Your task to perform on an android device: Add macbook air to the cart on walmart.com, then select checkout. Image 0: 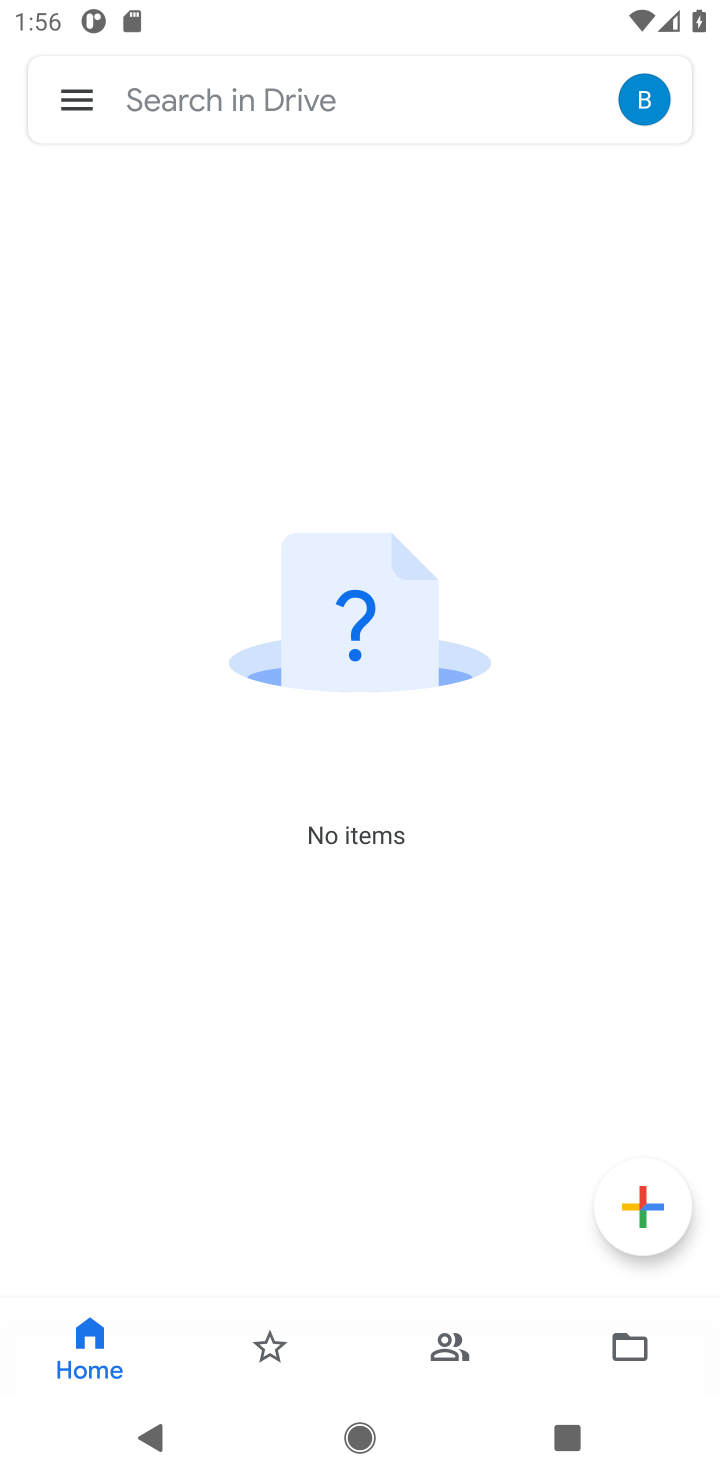
Step 0: press home button
Your task to perform on an android device: Add macbook air to the cart on walmart.com, then select checkout. Image 1: 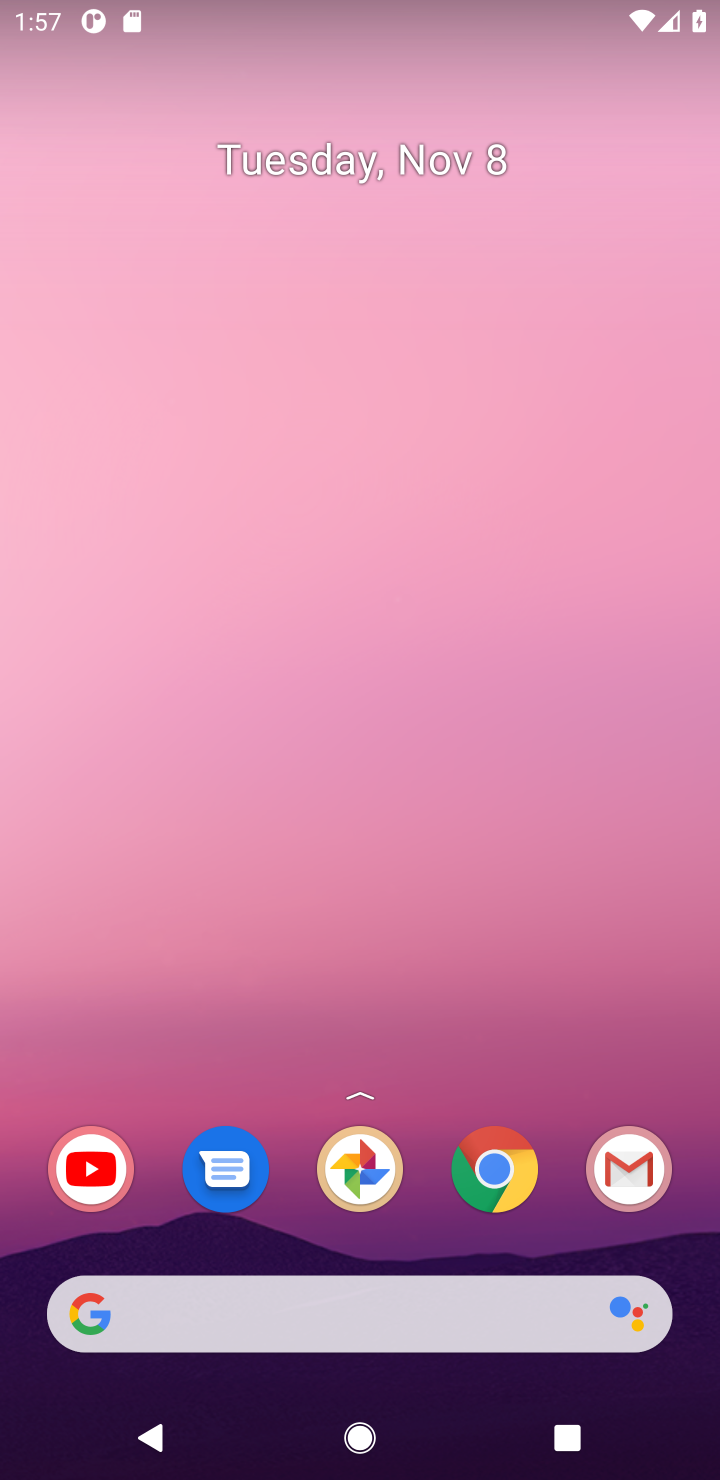
Step 1: click (464, 1163)
Your task to perform on an android device: Add macbook air to the cart on walmart.com, then select checkout. Image 2: 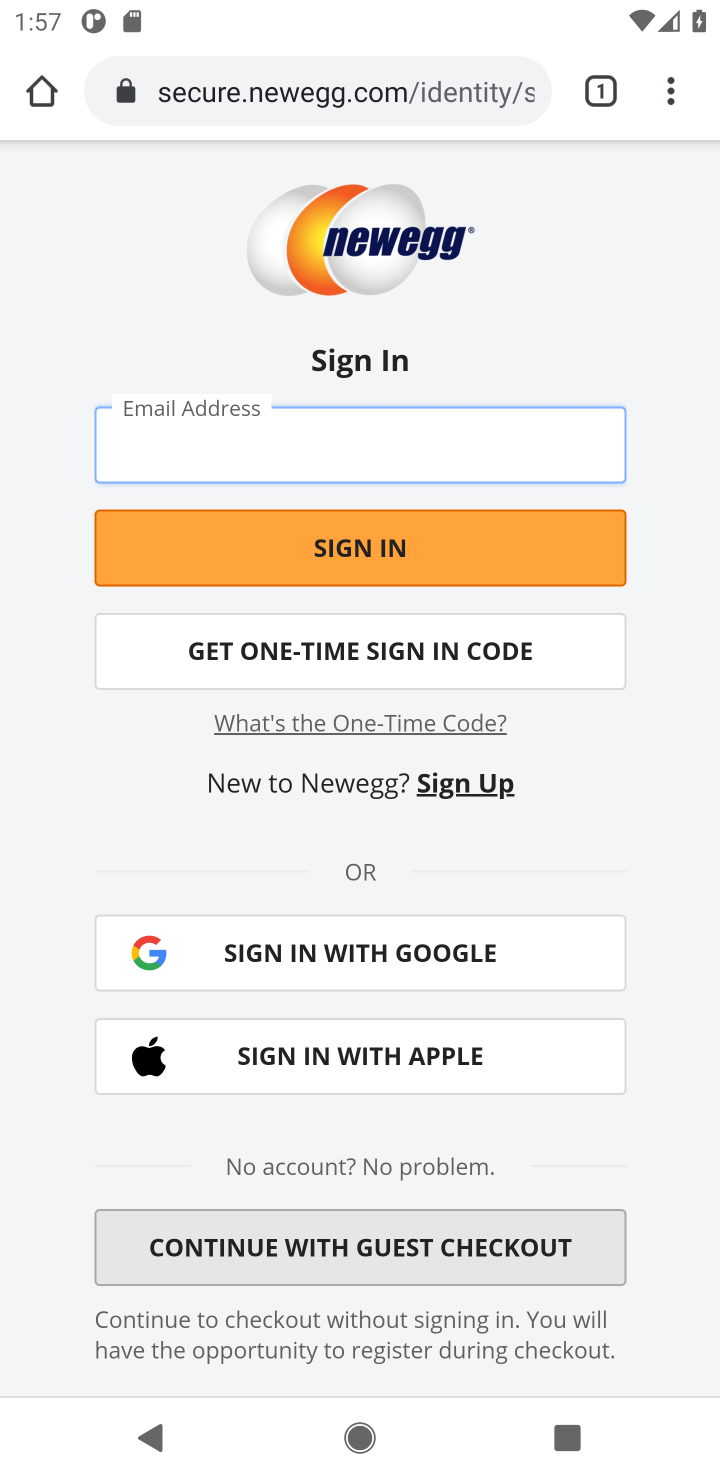
Step 2: click (349, 92)
Your task to perform on an android device: Add macbook air to the cart on walmart.com, then select checkout. Image 3: 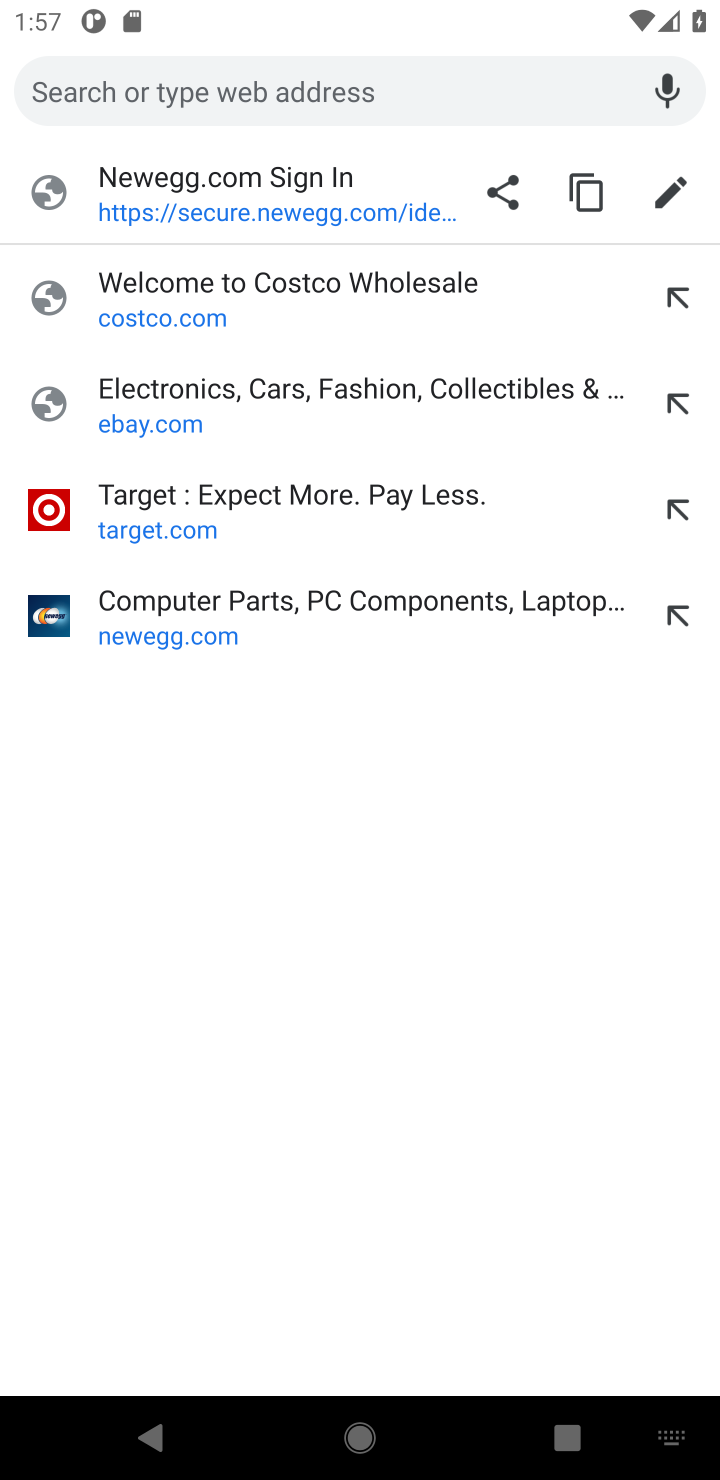
Step 3: type "walmart.com"
Your task to perform on an android device: Add macbook air to the cart on walmart.com, then select checkout. Image 4: 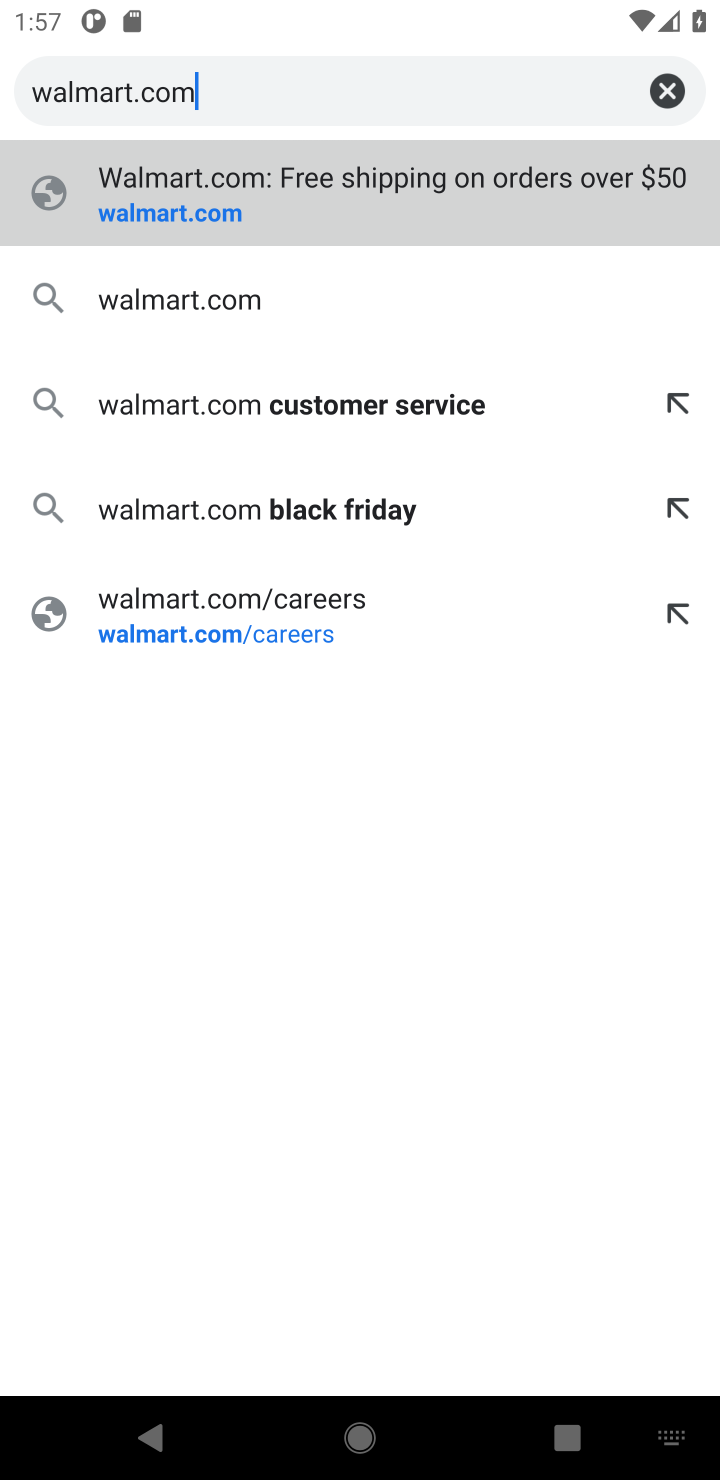
Step 4: click (343, 151)
Your task to perform on an android device: Add macbook air to the cart on walmart.com, then select checkout. Image 5: 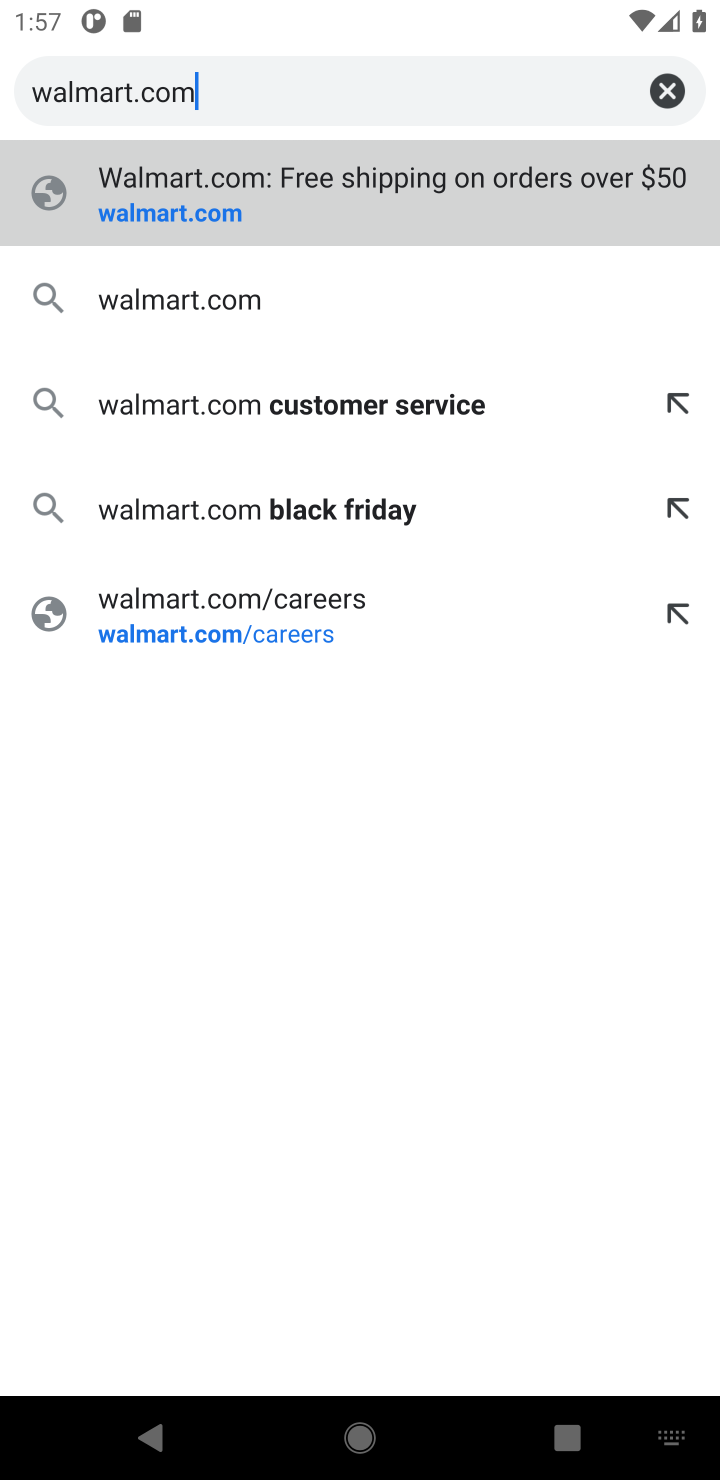
Step 5: click (339, 209)
Your task to perform on an android device: Add macbook air to the cart on walmart.com, then select checkout. Image 6: 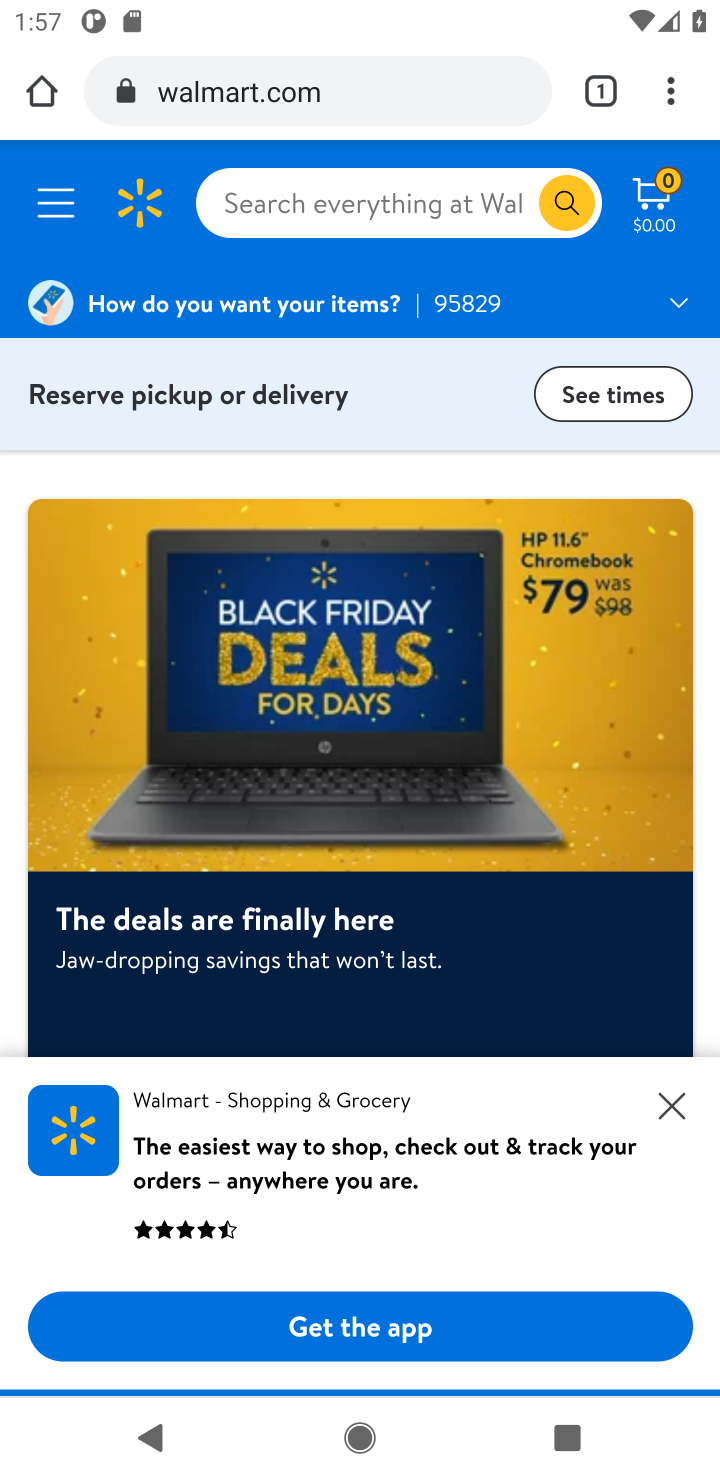
Step 6: click (368, 204)
Your task to perform on an android device: Add macbook air to the cart on walmart.com, then select checkout. Image 7: 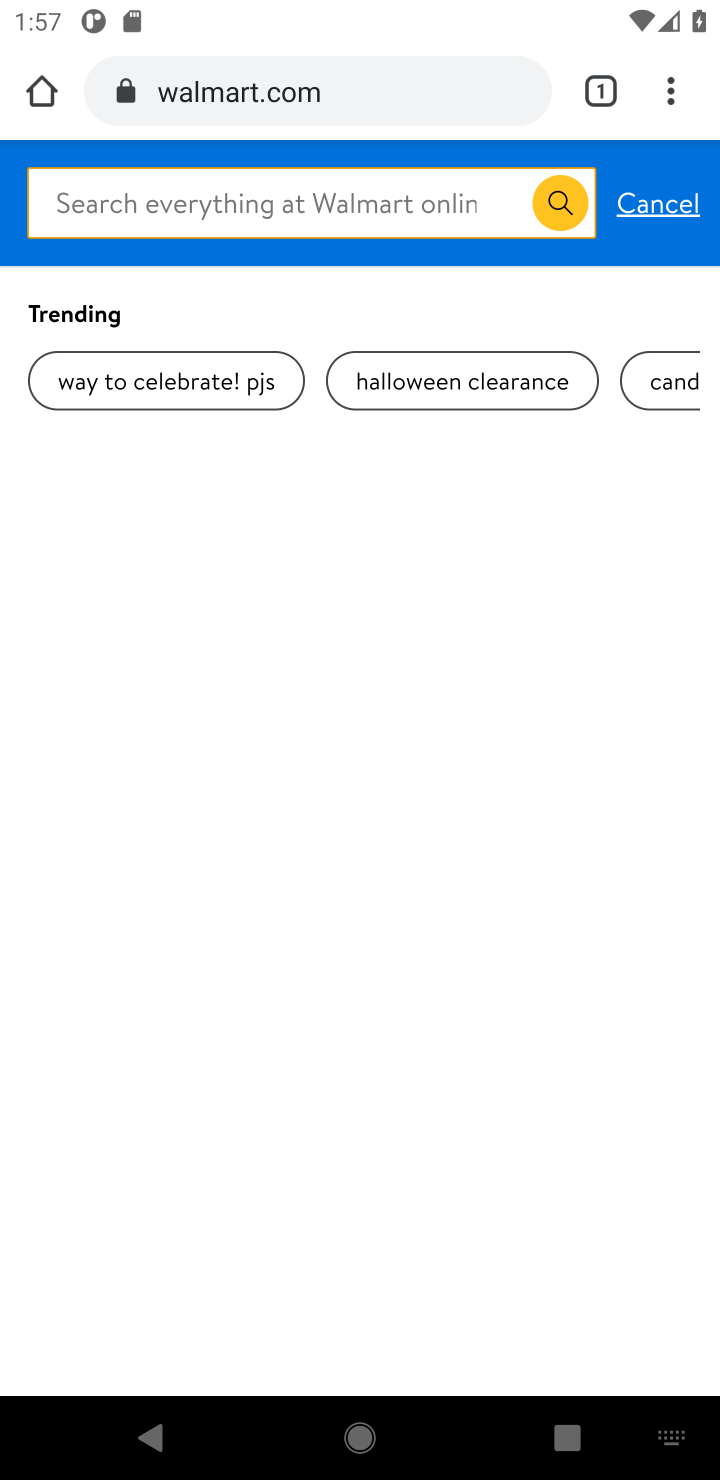
Step 7: type "macbook air"
Your task to perform on an android device: Add macbook air to the cart on walmart.com, then select checkout. Image 8: 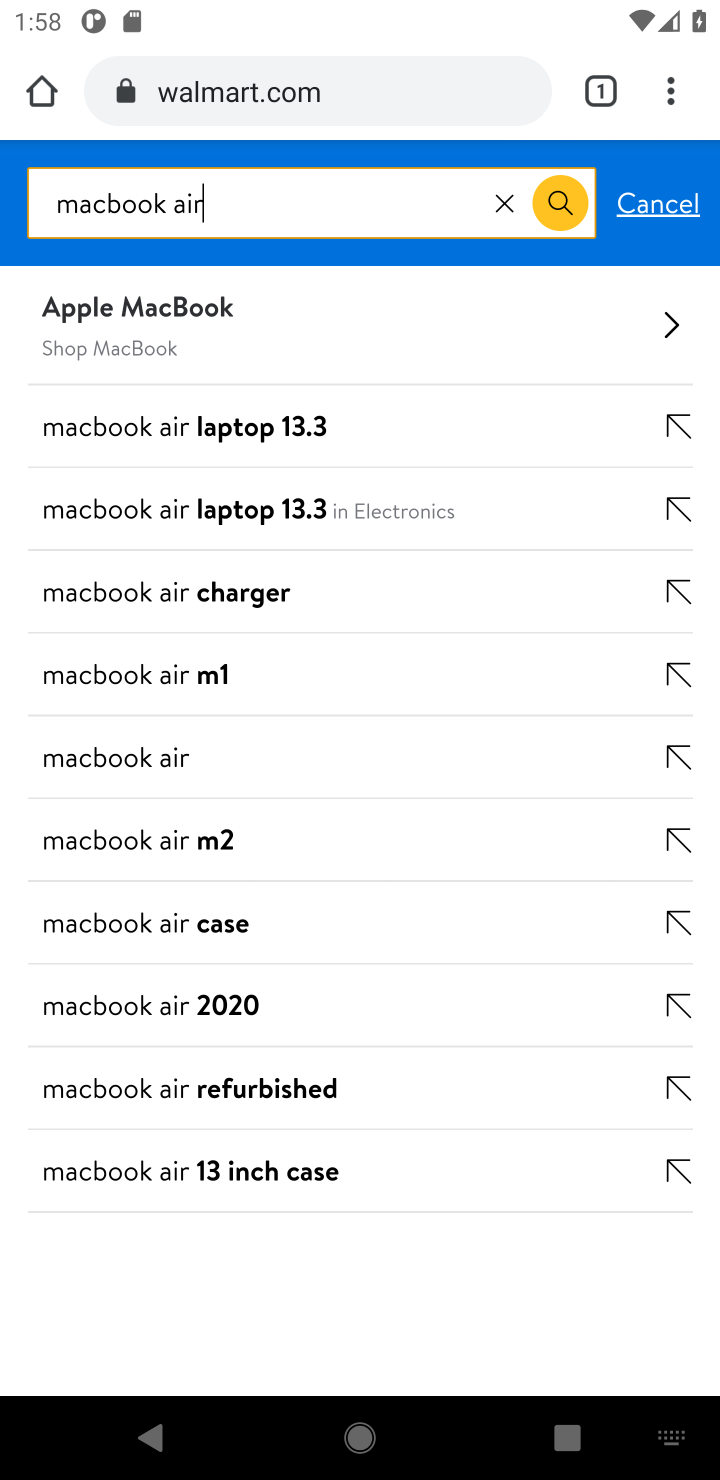
Step 8: press enter
Your task to perform on an android device: Add macbook air to the cart on walmart.com, then select checkout. Image 9: 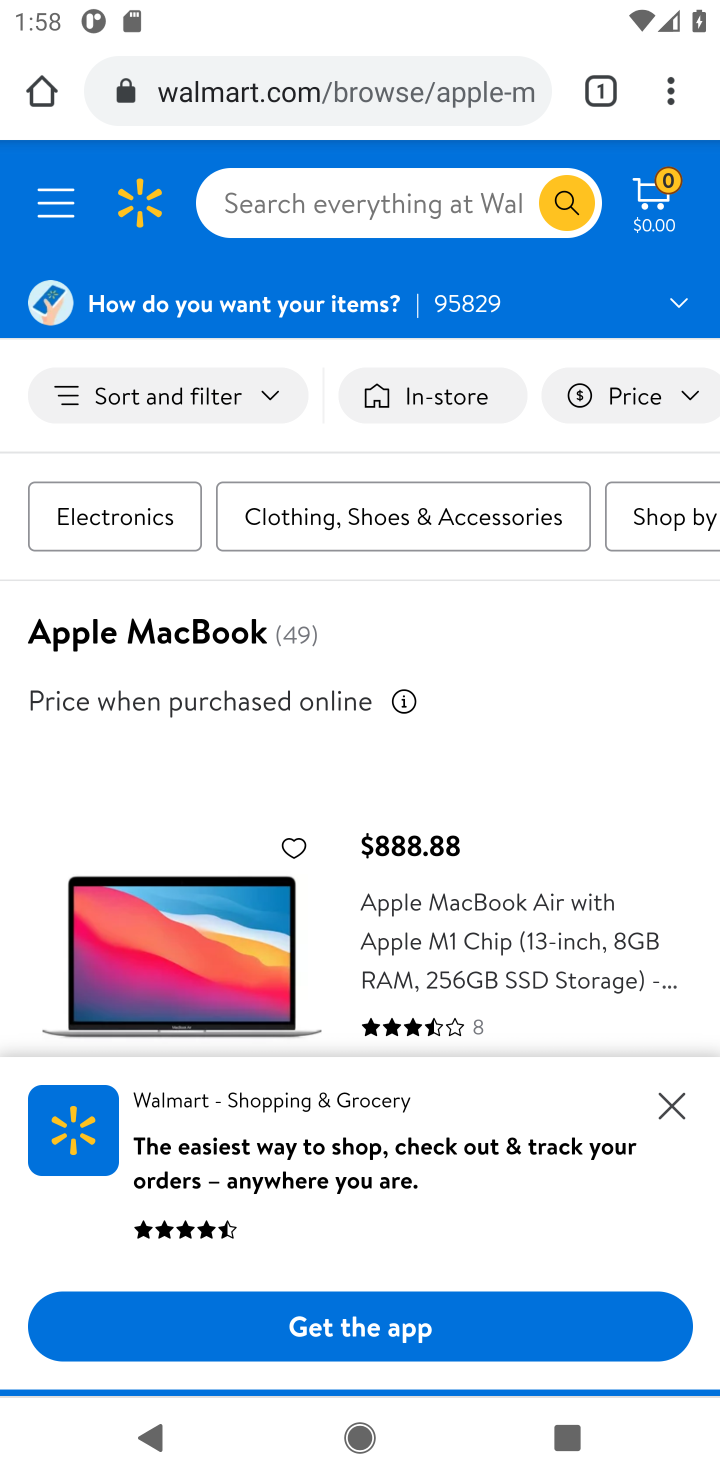
Step 9: click (409, 946)
Your task to perform on an android device: Add macbook air to the cart on walmart.com, then select checkout. Image 10: 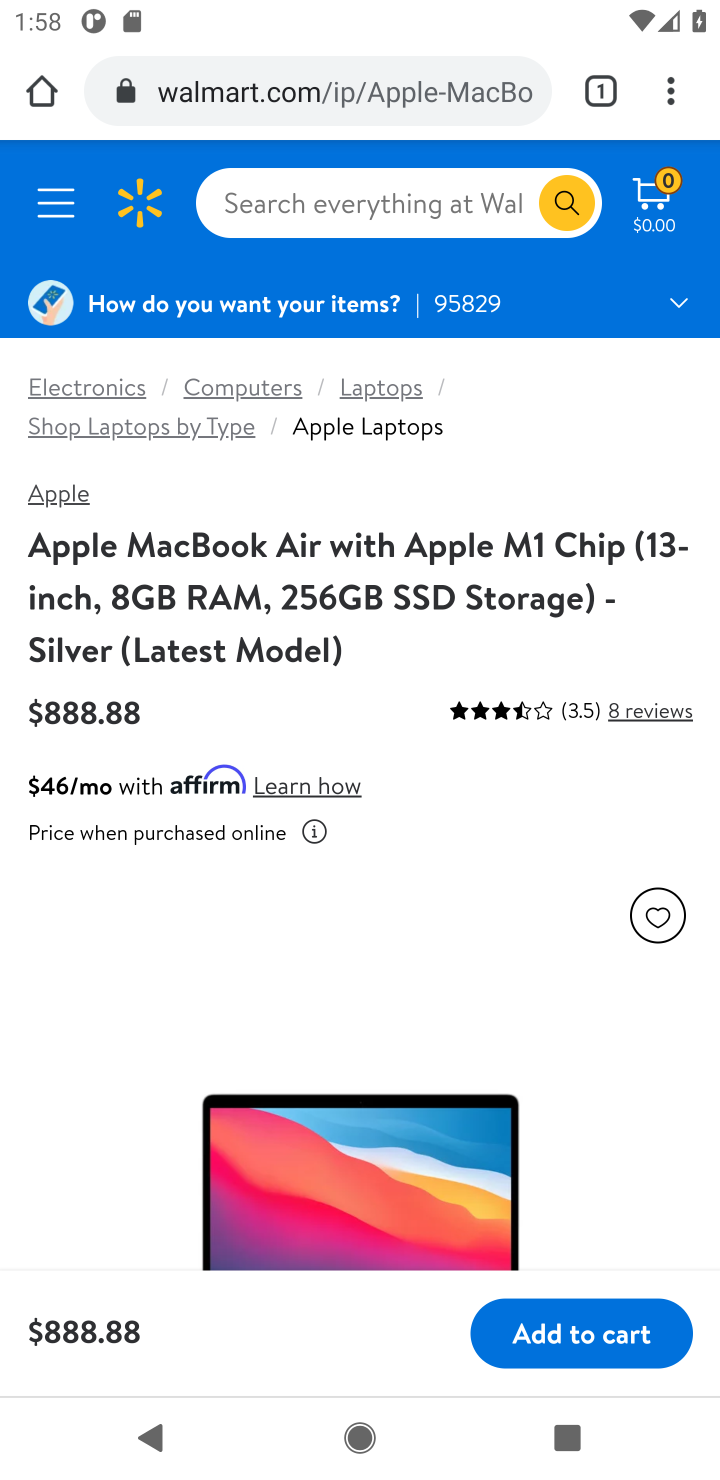
Step 10: drag from (508, 1062) to (427, 581)
Your task to perform on an android device: Add macbook air to the cart on walmart.com, then select checkout. Image 11: 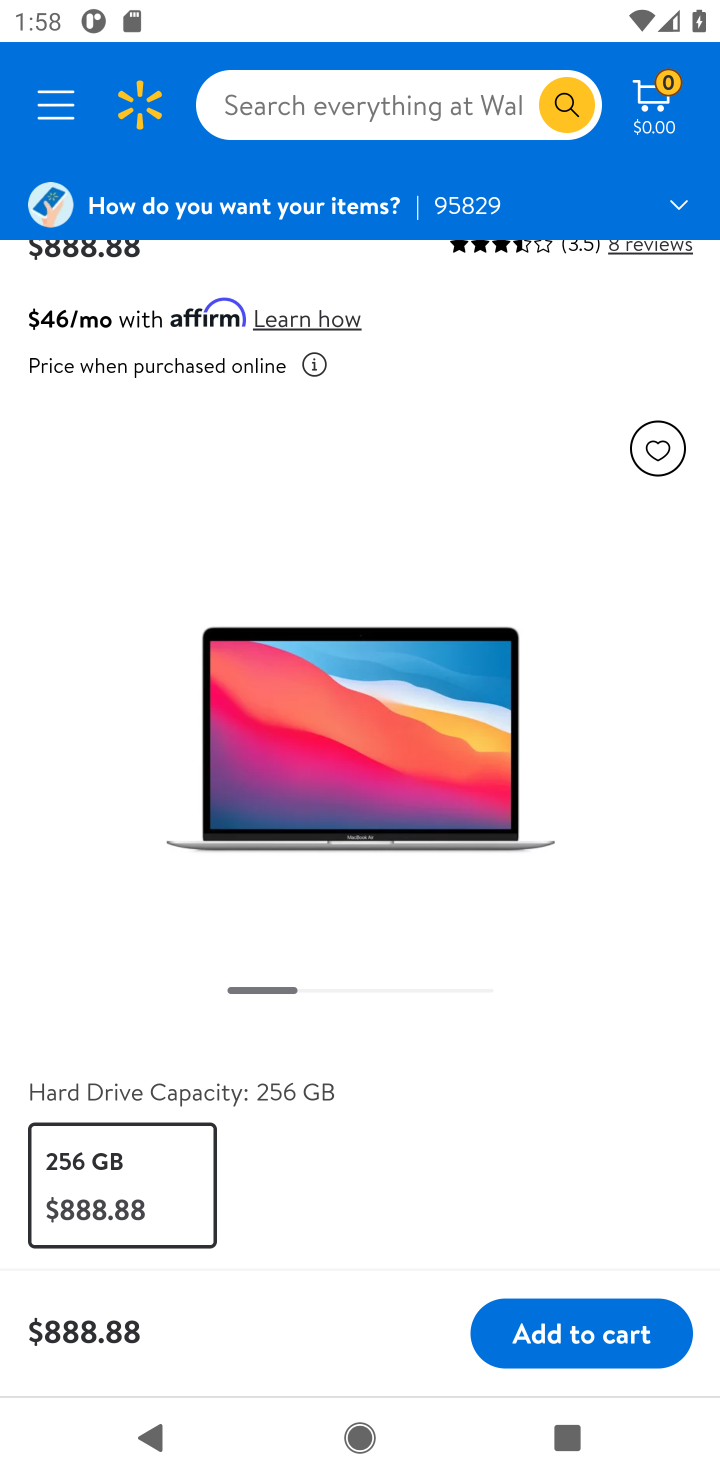
Step 11: click (524, 1336)
Your task to perform on an android device: Add macbook air to the cart on walmart.com, then select checkout. Image 12: 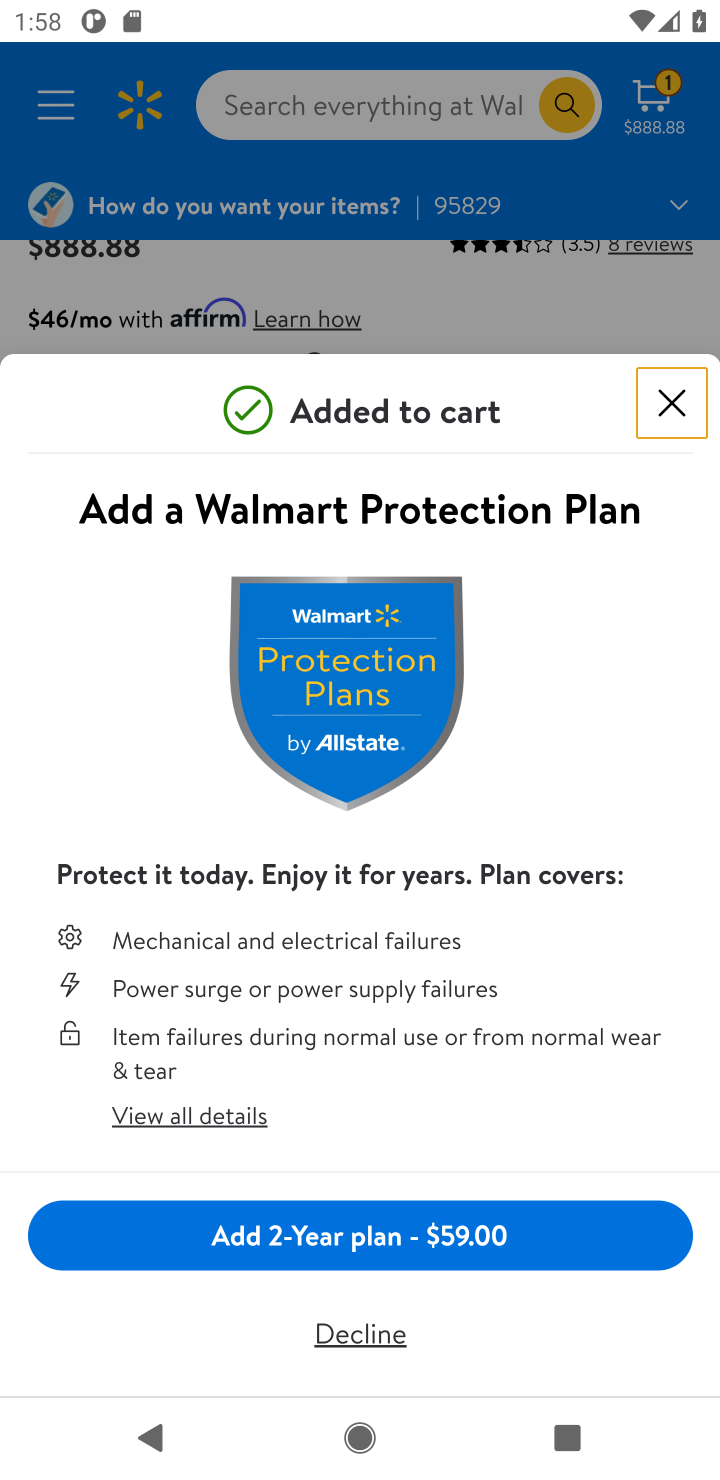
Step 12: click (680, 401)
Your task to perform on an android device: Add macbook air to the cart on walmart.com, then select checkout. Image 13: 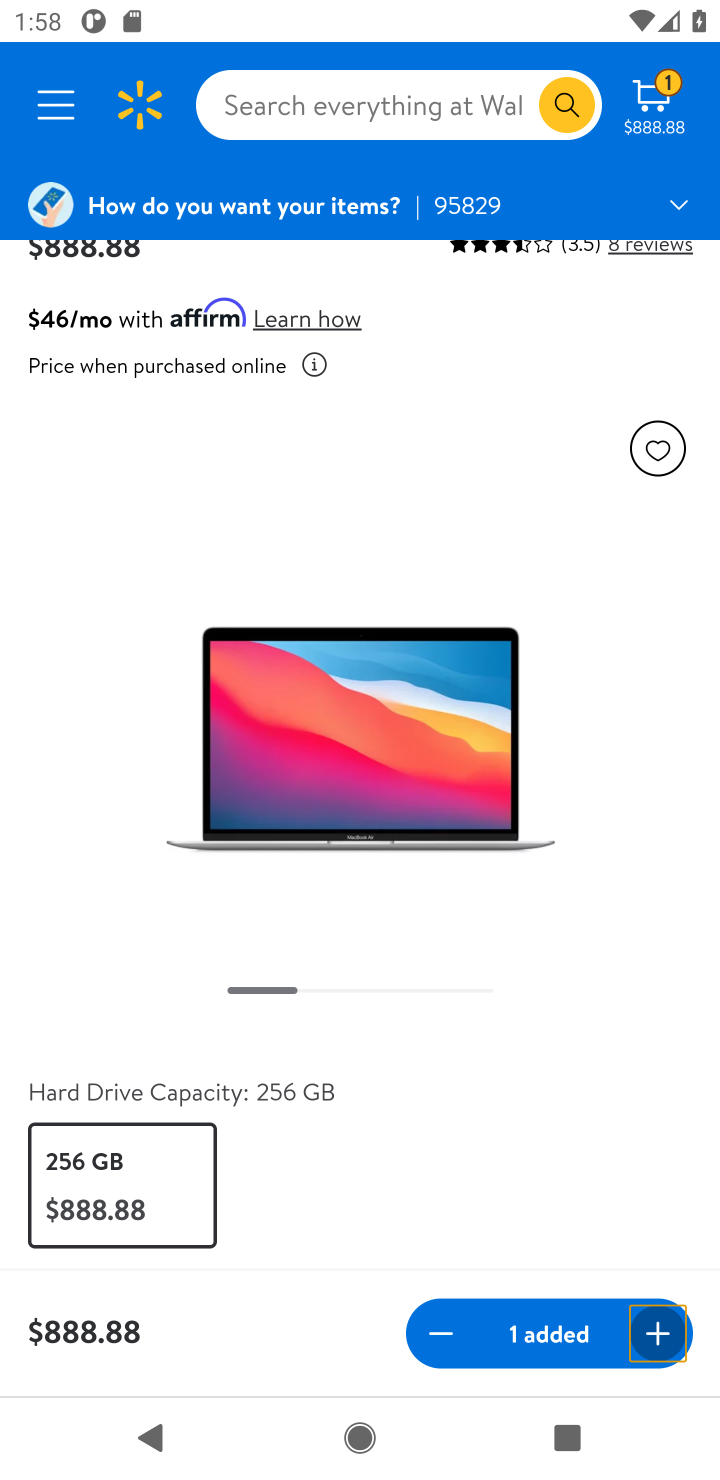
Step 13: click (641, 109)
Your task to perform on an android device: Add macbook air to the cart on walmart.com, then select checkout. Image 14: 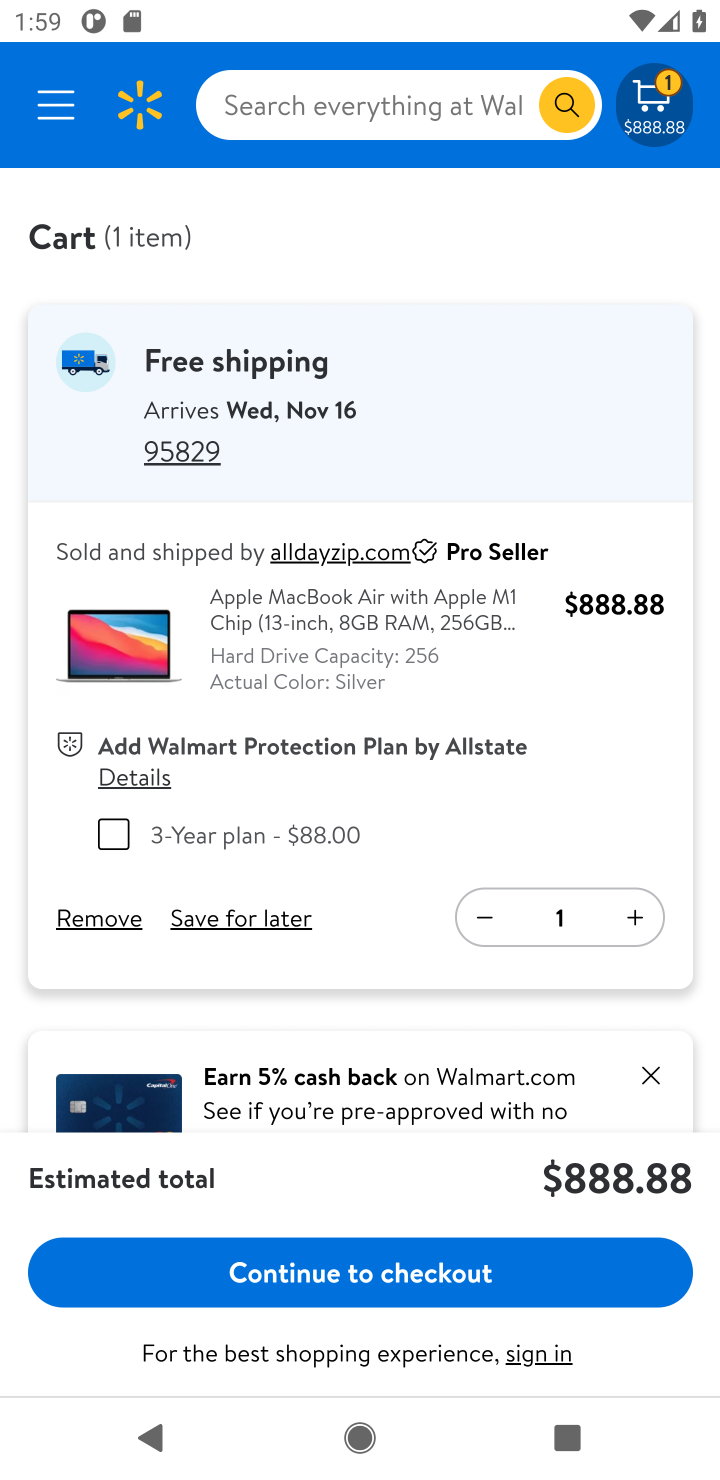
Step 14: click (569, 1272)
Your task to perform on an android device: Add macbook air to the cart on walmart.com, then select checkout. Image 15: 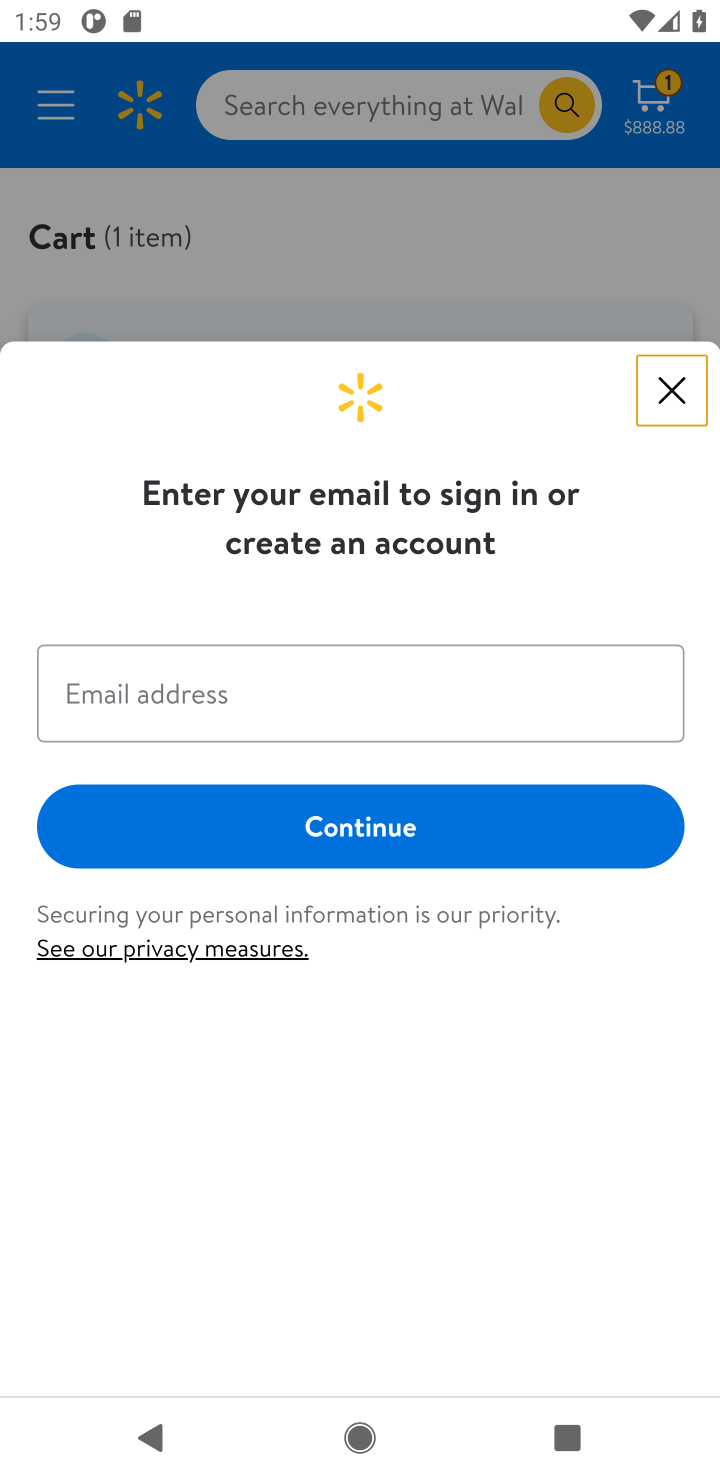
Step 15: task complete